Your task to perform on an android device: choose inbox layout in the gmail app Image 0: 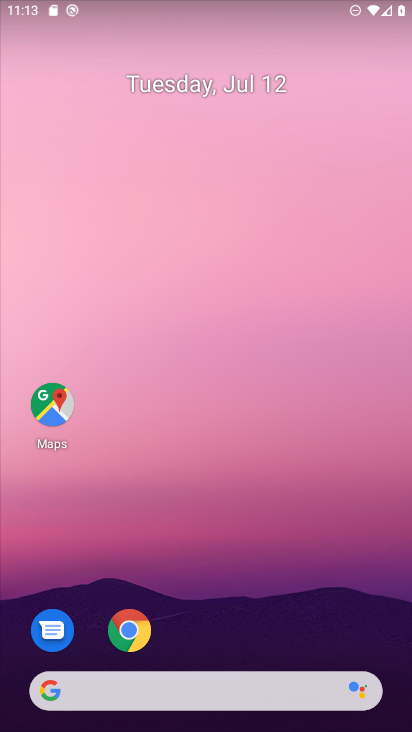
Step 0: drag from (264, 638) to (260, 49)
Your task to perform on an android device: choose inbox layout in the gmail app Image 1: 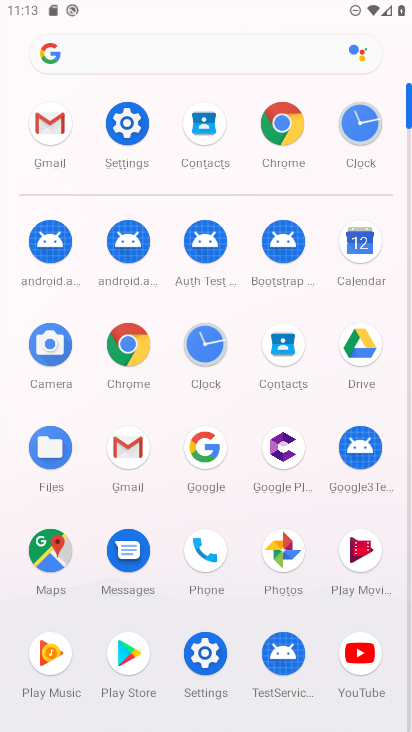
Step 1: click (62, 118)
Your task to perform on an android device: choose inbox layout in the gmail app Image 2: 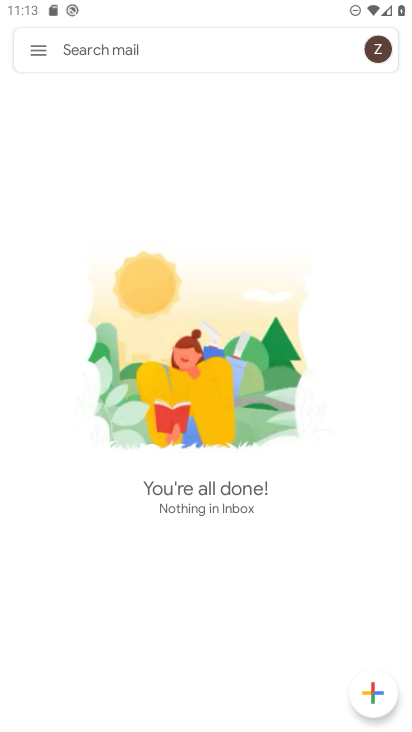
Step 2: click (37, 51)
Your task to perform on an android device: choose inbox layout in the gmail app Image 3: 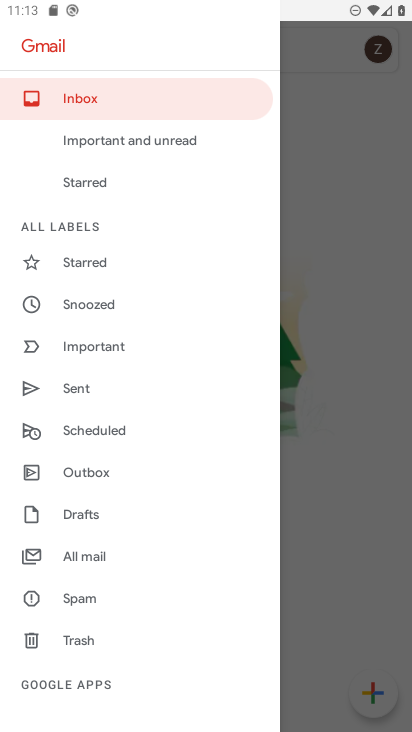
Step 3: drag from (125, 633) to (109, 240)
Your task to perform on an android device: choose inbox layout in the gmail app Image 4: 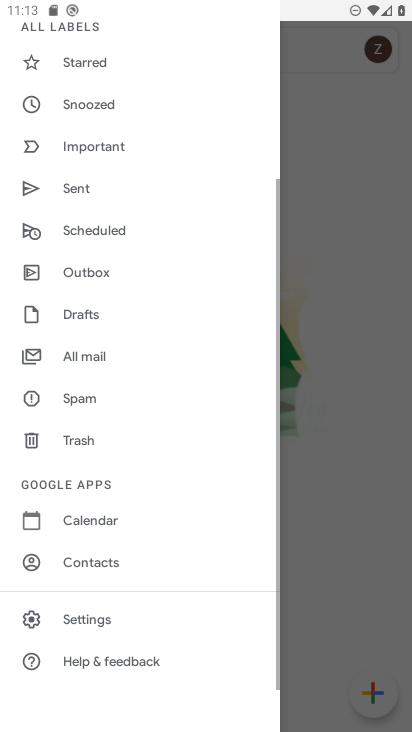
Step 4: click (79, 620)
Your task to perform on an android device: choose inbox layout in the gmail app Image 5: 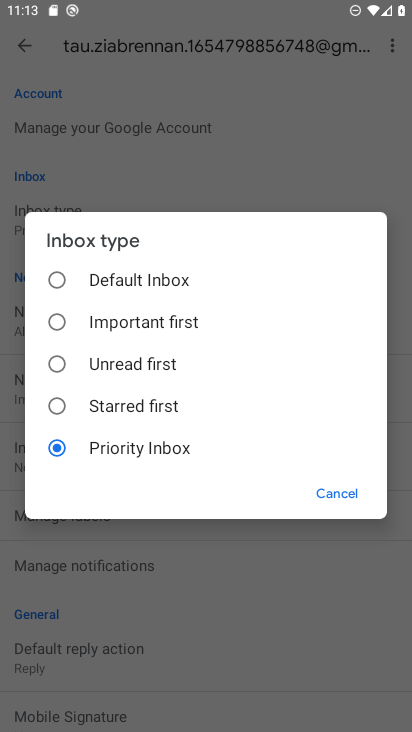
Step 5: task complete